Your task to perform on an android device: Is it going to rain tomorrow? Image 0: 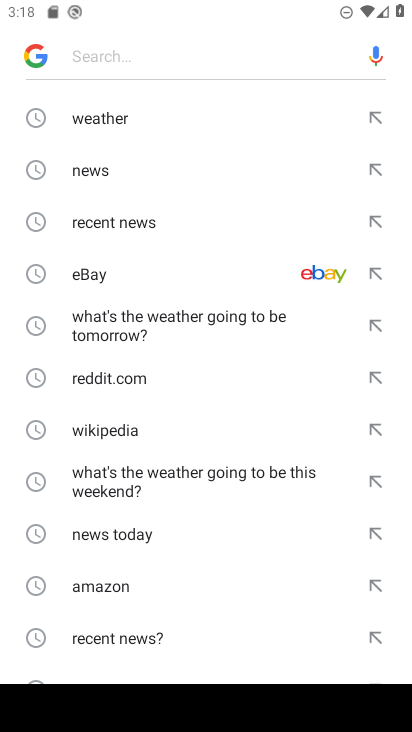
Step 0: type "Is it going to rain tomorrow?"
Your task to perform on an android device: Is it going to rain tomorrow? Image 1: 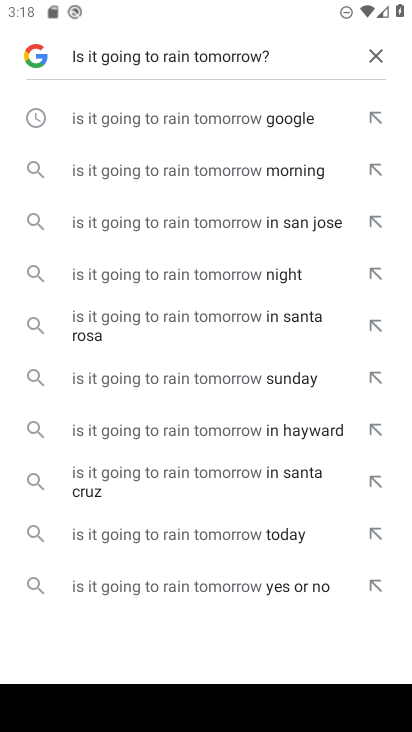
Step 1: click (262, 122)
Your task to perform on an android device: Is it going to rain tomorrow? Image 2: 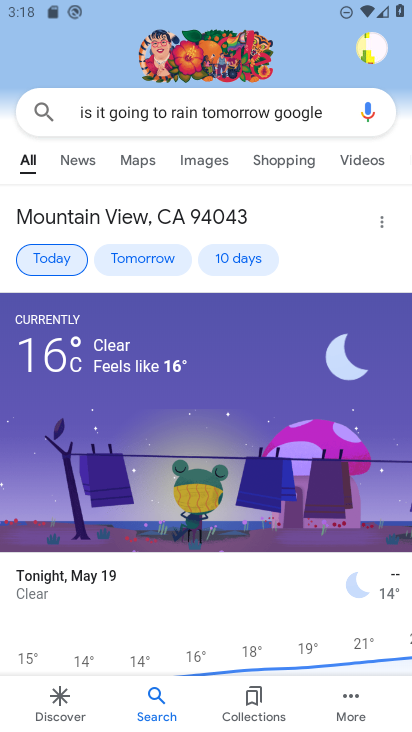
Step 2: task complete